Your task to perform on an android device: Go to accessibility settings Image 0: 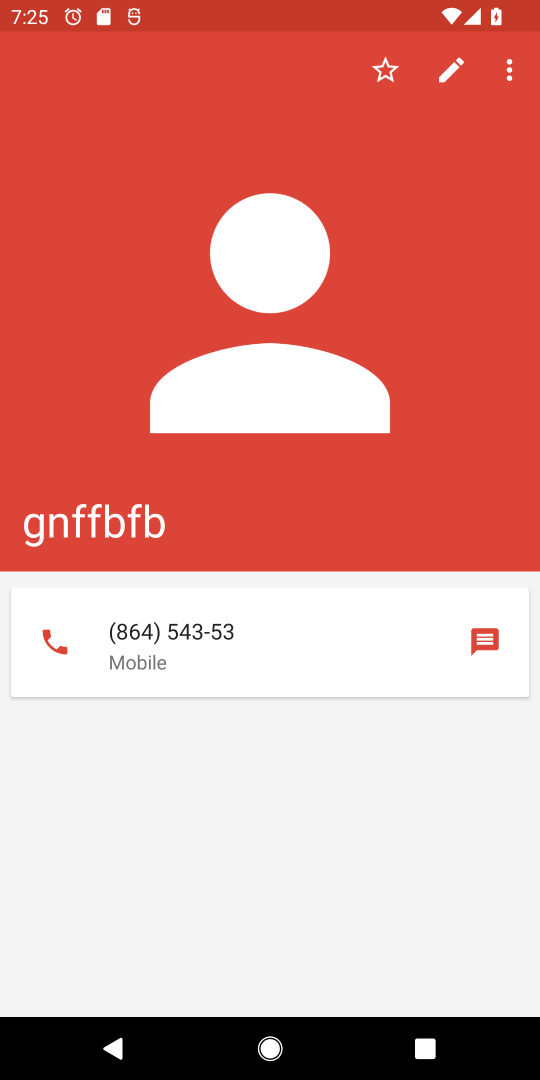
Step 0: press home button
Your task to perform on an android device: Go to accessibility settings Image 1: 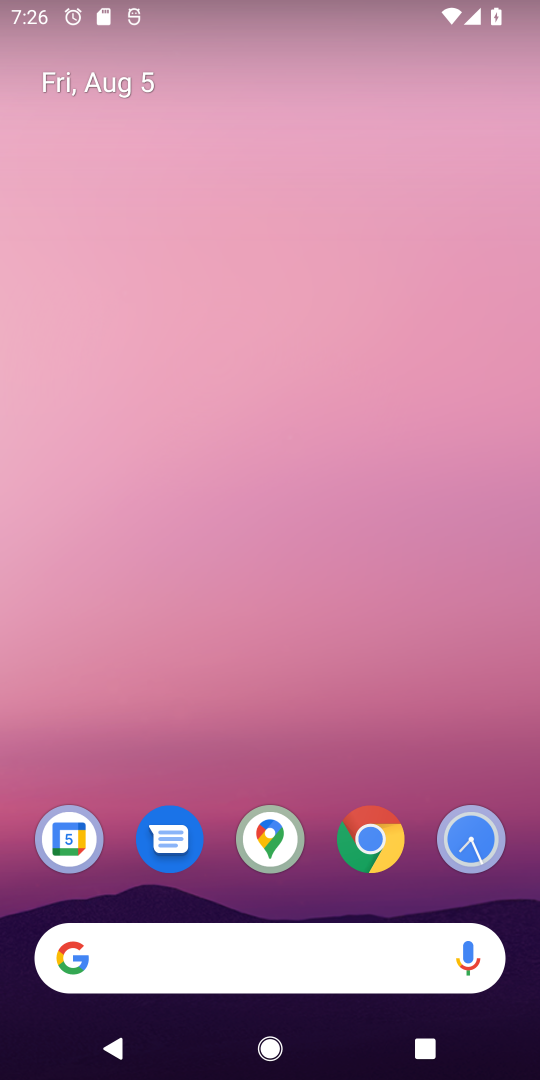
Step 1: drag from (256, 763) to (310, 157)
Your task to perform on an android device: Go to accessibility settings Image 2: 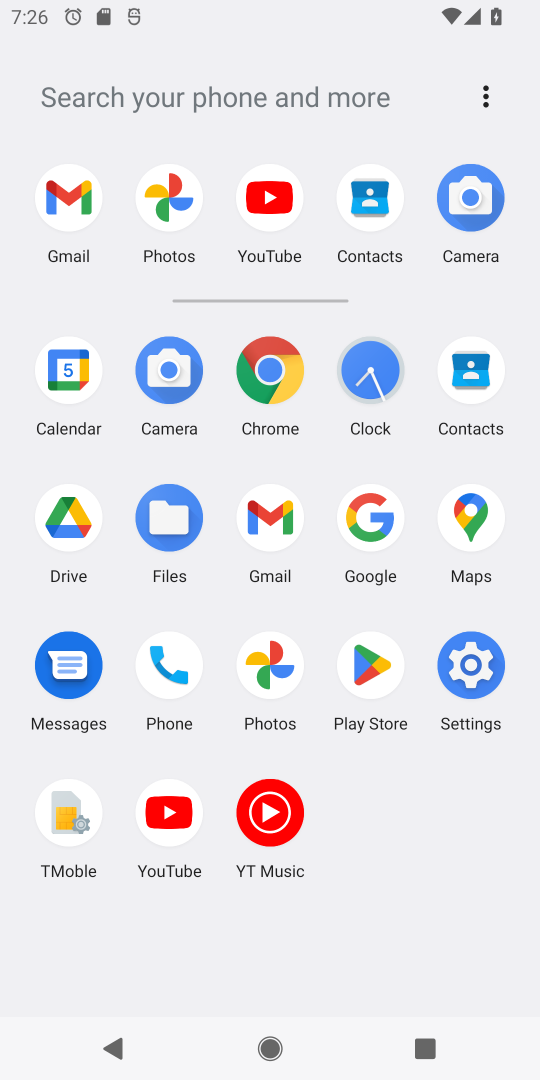
Step 2: click (453, 673)
Your task to perform on an android device: Go to accessibility settings Image 3: 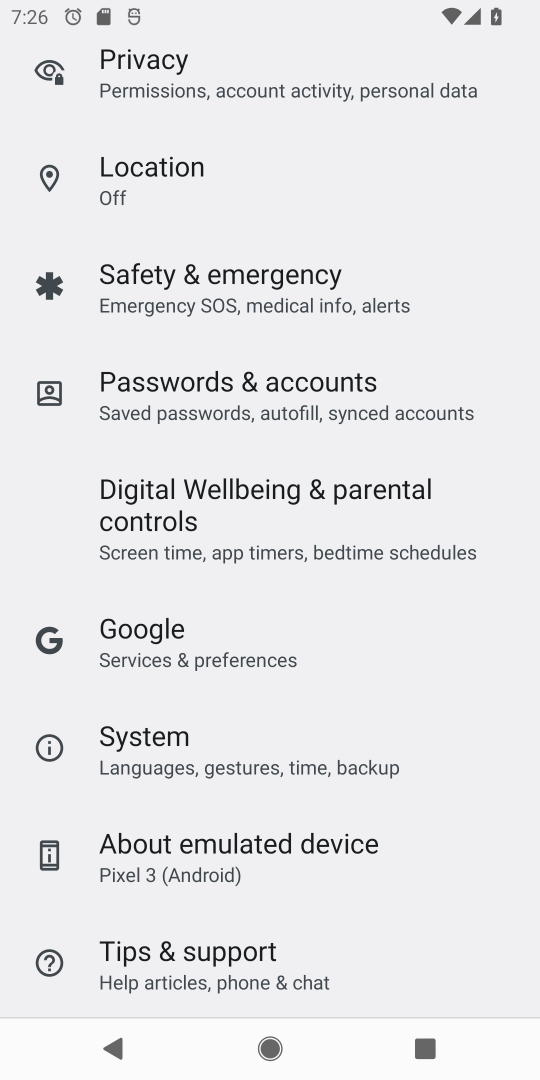
Step 3: drag from (327, 364) to (332, 790)
Your task to perform on an android device: Go to accessibility settings Image 4: 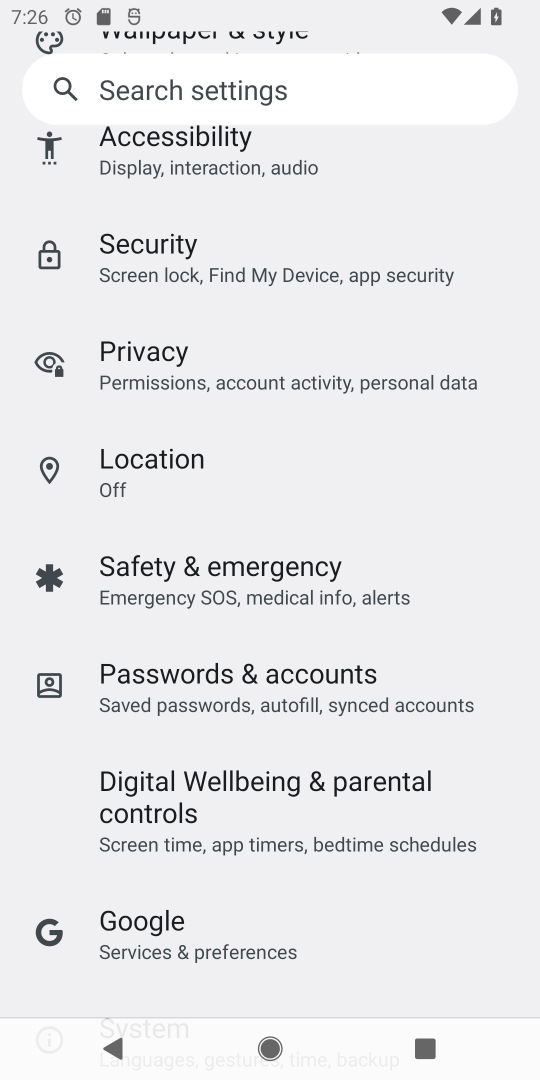
Step 4: click (210, 158)
Your task to perform on an android device: Go to accessibility settings Image 5: 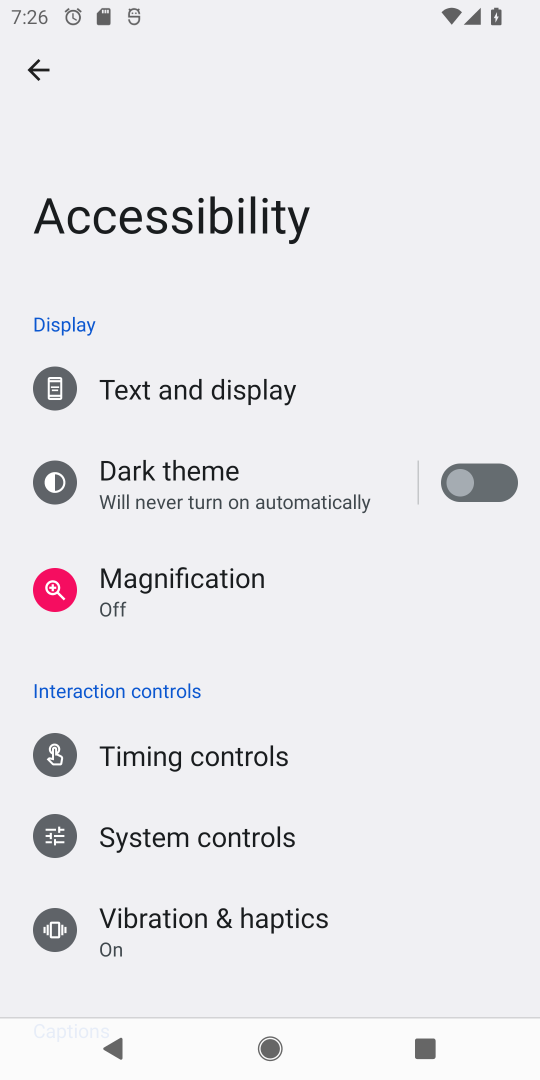
Step 5: task complete